Your task to perform on an android device: What's the weather going to be this weekend? Image 0: 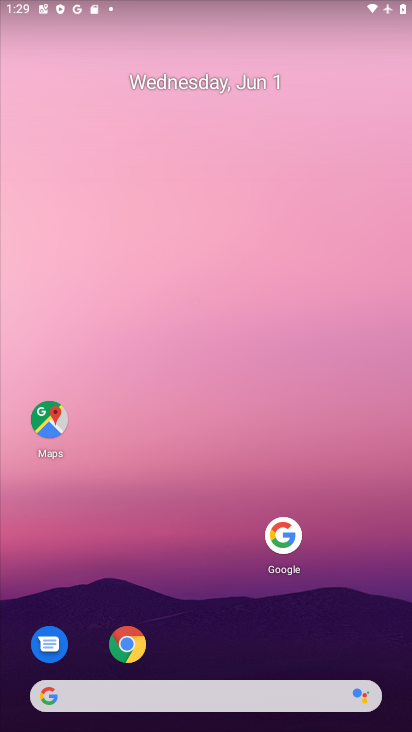
Step 0: press home button
Your task to perform on an android device: What's the weather going to be this weekend? Image 1: 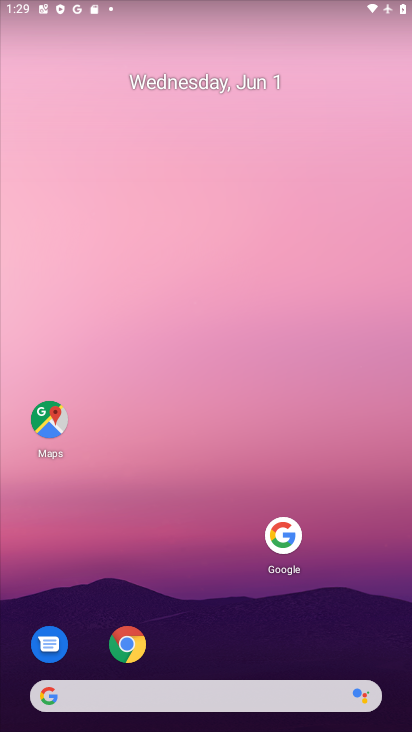
Step 1: click (51, 701)
Your task to perform on an android device: What's the weather going to be this weekend? Image 2: 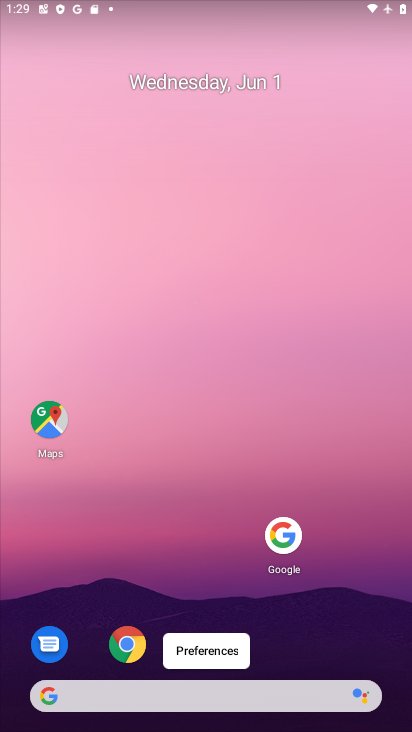
Step 2: click (50, 697)
Your task to perform on an android device: What's the weather going to be this weekend? Image 3: 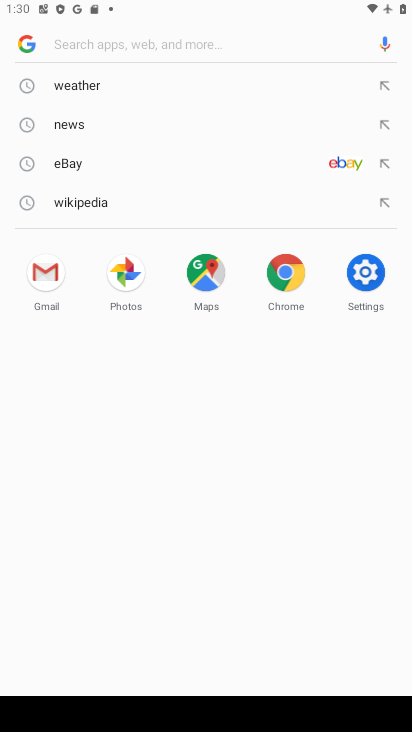
Step 3: click (88, 84)
Your task to perform on an android device: What's the weather going to be this weekend? Image 4: 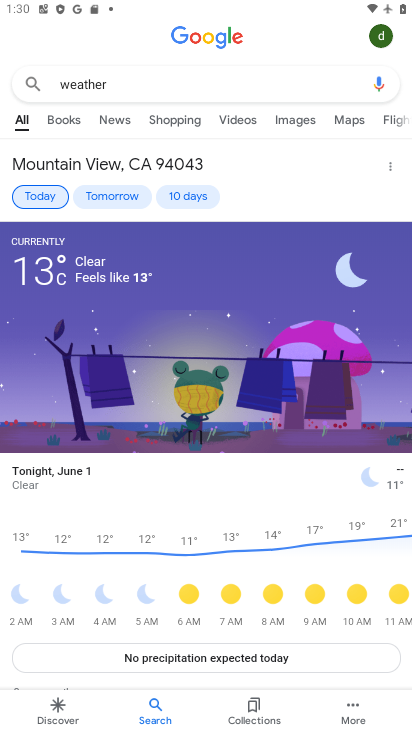
Step 4: click (179, 194)
Your task to perform on an android device: What's the weather going to be this weekend? Image 5: 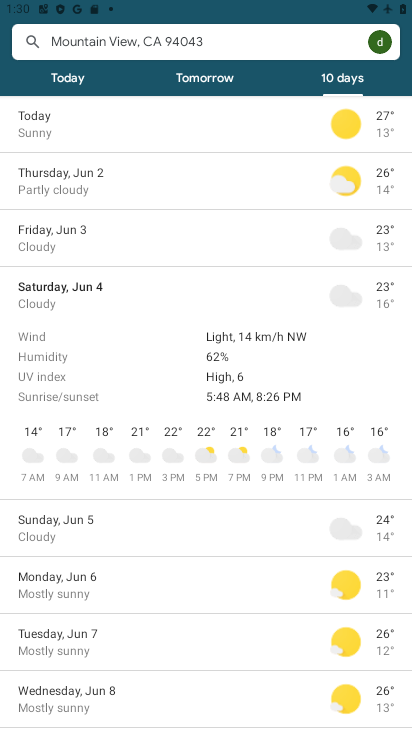
Step 5: task complete